Your task to perform on an android device: Go to Google maps Image 0: 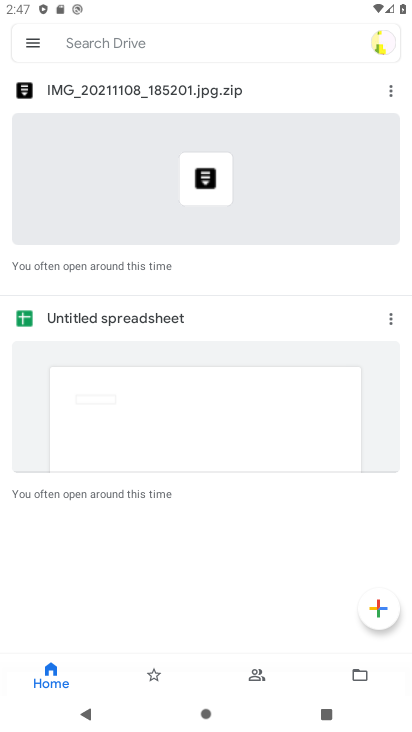
Step 0: press home button
Your task to perform on an android device: Go to Google maps Image 1: 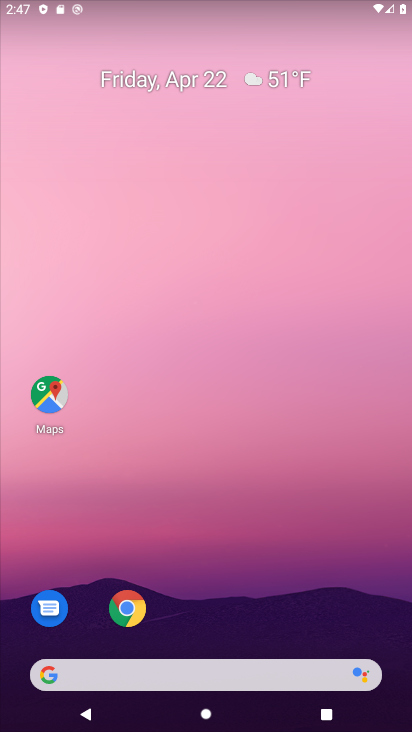
Step 1: click (251, 633)
Your task to perform on an android device: Go to Google maps Image 2: 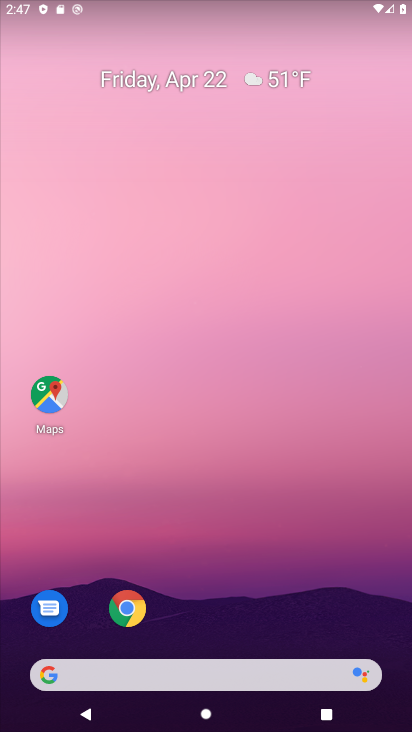
Step 2: click (51, 397)
Your task to perform on an android device: Go to Google maps Image 3: 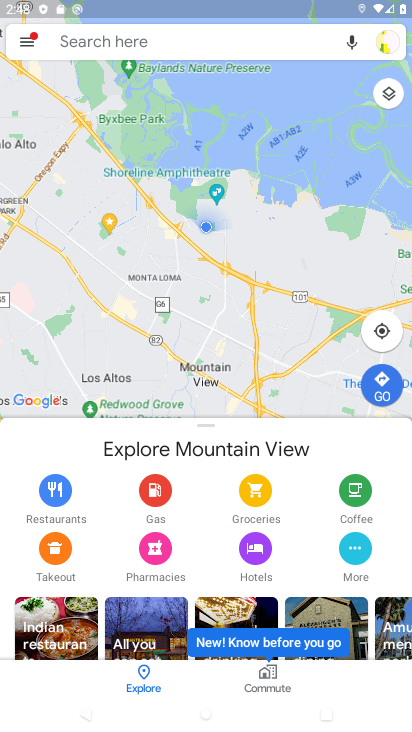
Step 3: task complete